Your task to perform on an android device: Open calendar and show me the third week of next month Image 0: 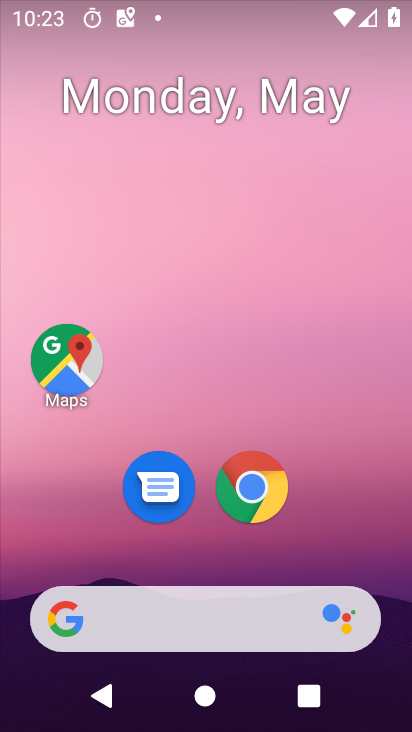
Step 0: drag from (320, 541) to (402, 88)
Your task to perform on an android device: Open calendar and show me the third week of next month Image 1: 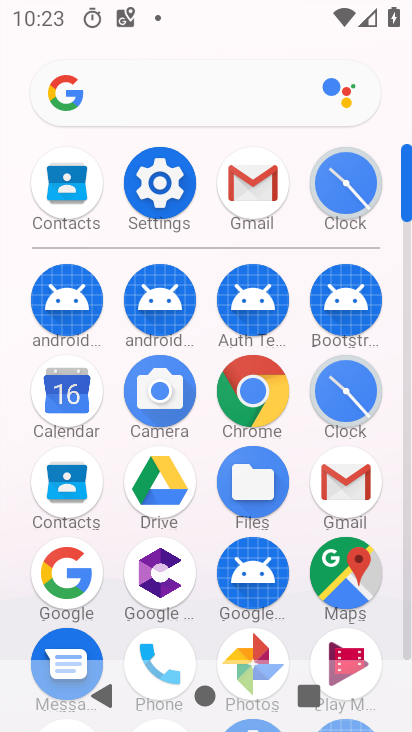
Step 1: click (68, 397)
Your task to perform on an android device: Open calendar and show me the third week of next month Image 2: 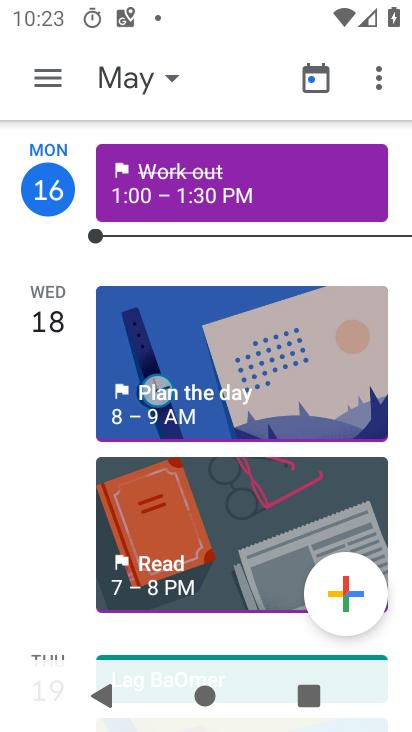
Step 2: click (130, 82)
Your task to perform on an android device: Open calendar and show me the third week of next month Image 3: 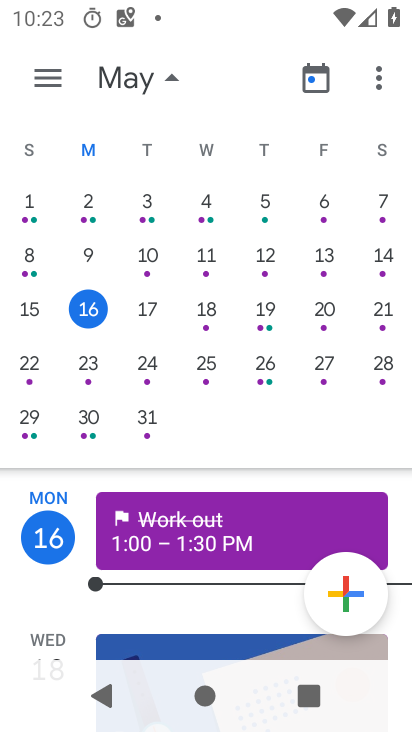
Step 3: drag from (367, 352) to (37, 236)
Your task to perform on an android device: Open calendar and show me the third week of next month Image 4: 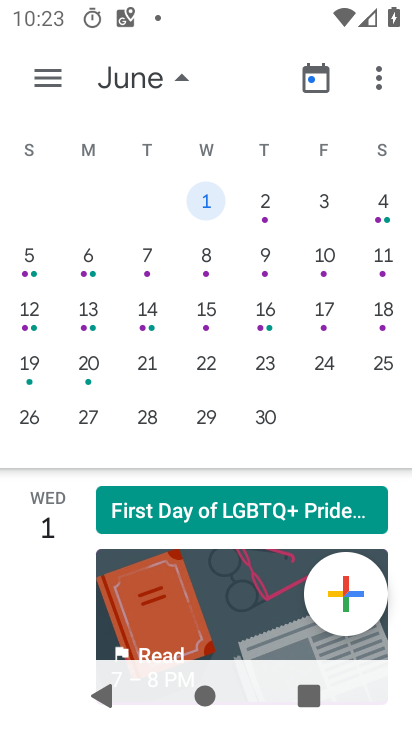
Step 4: click (33, 319)
Your task to perform on an android device: Open calendar and show me the third week of next month Image 5: 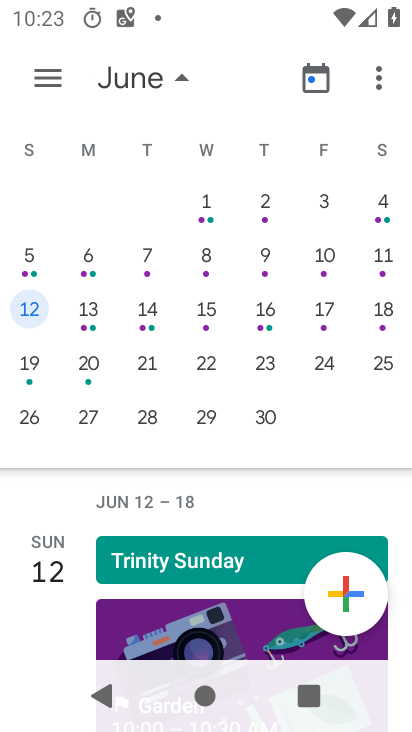
Step 5: task complete